Your task to perform on an android device: View the shopping cart on amazon. Image 0: 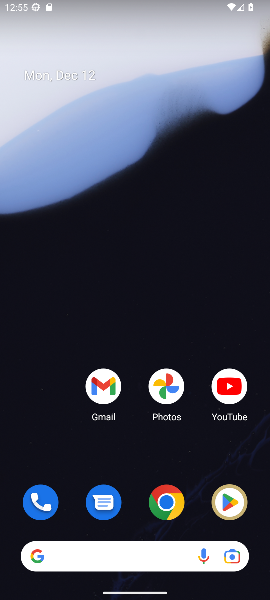
Step 0: click (167, 506)
Your task to perform on an android device: View the shopping cart on amazon. Image 1: 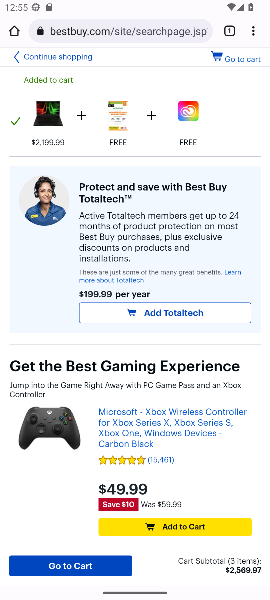
Step 1: click (134, 33)
Your task to perform on an android device: View the shopping cart on amazon. Image 2: 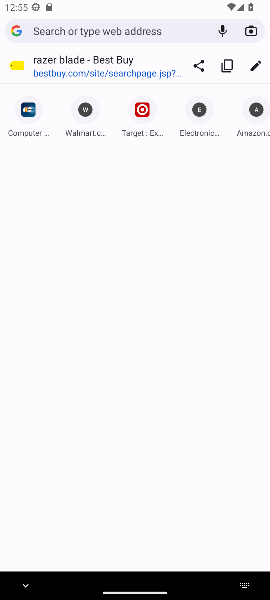
Step 2: type "amazone"
Your task to perform on an android device: View the shopping cart on amazon. Image 3: 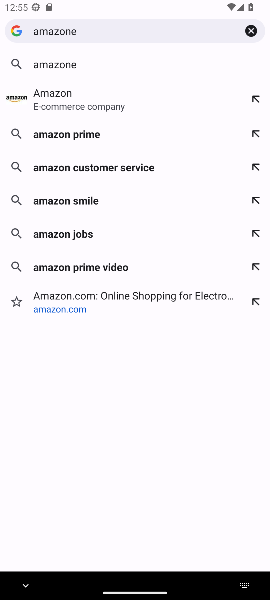
Step 3: click (64, 94)
Your task to perform on an android device: View the shopping cart on amazon. Image 4: 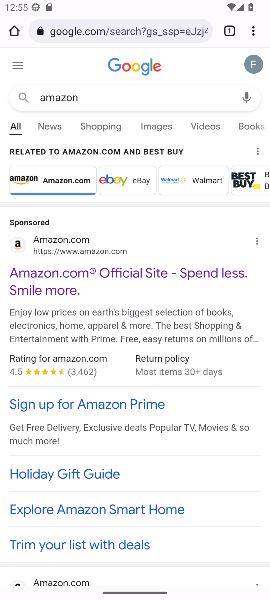
Step 4: click (60, 276)
Your task to perform on an android device: View the shopping cart on amazon. Image 5: 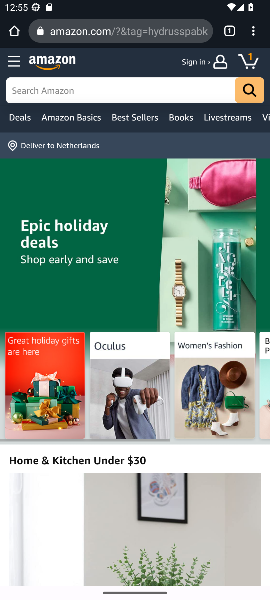
Step 5: click (110, 96)
Your task to perform on an android device: View the shopping cart on amazon. Image 6: 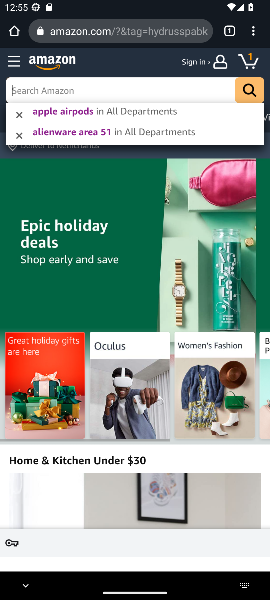
Step 6: click (252, 58)
Your task to perform on an android device: View the shopping cart on amazon. Image 7: 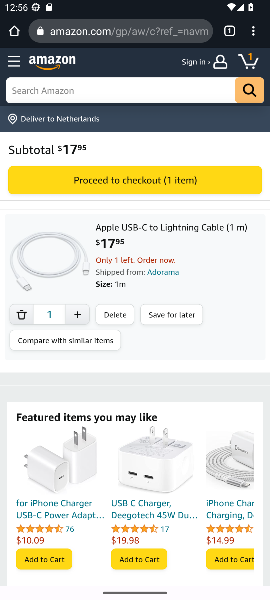
Step 7: click (245, 67)
Your task to perform on an android device: View the shopping cart on amazon. Image 8: 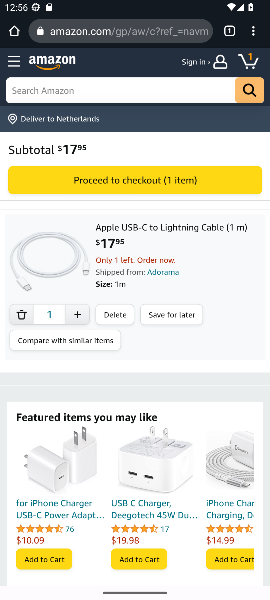
Step 8: click (103, 321)
Your task to perform on an android device: View the shopping cart on amazon. Image 9: 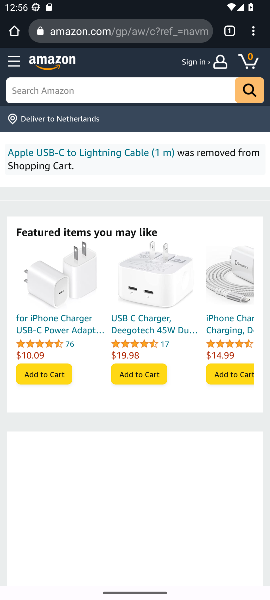
Step 9: task complete